Your task to perform on an android device: turn off location history Image 0: 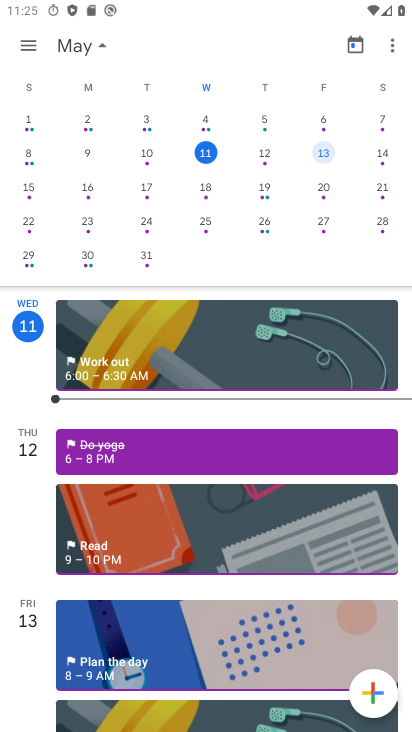
Step 0: press home button
Your task to perform on an android device: turn off location history Image 1: 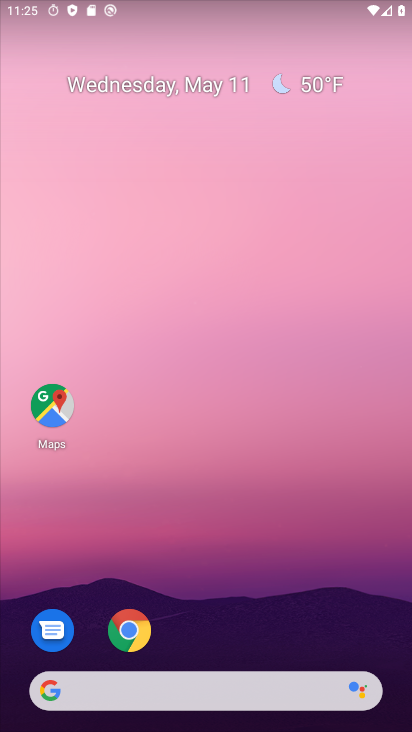
Step 1: drag from (251, 641) to (275, 87)
Your task to perform on an android device: turn off location history Image 2: 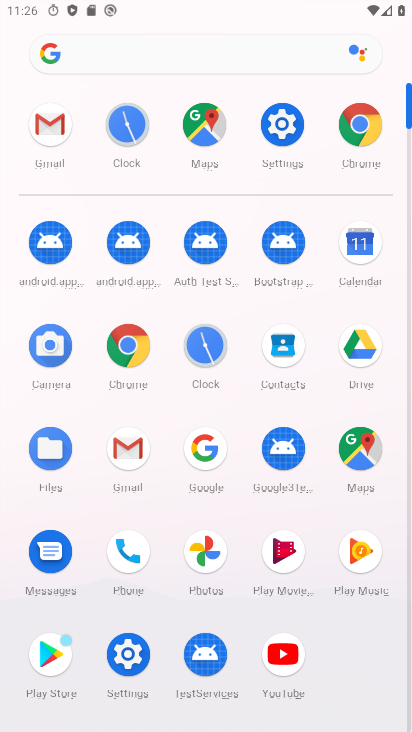
Step 2: click (125, 648)
Your task to perform on an android device: turn off location history Image 3: 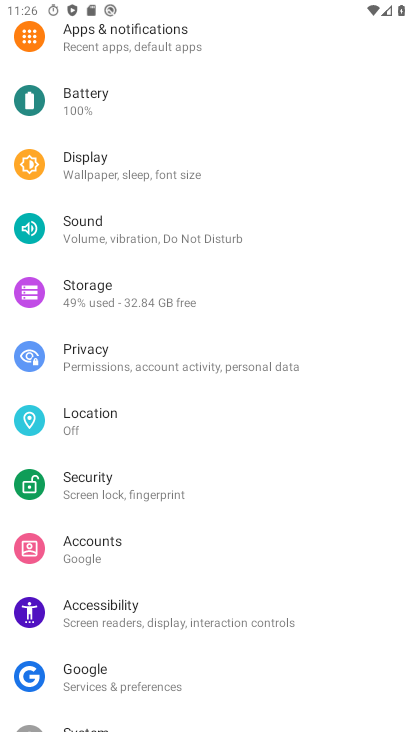
Step 3: click (107, 431)
Your task to perform on an android device: turn off location history Image 4: 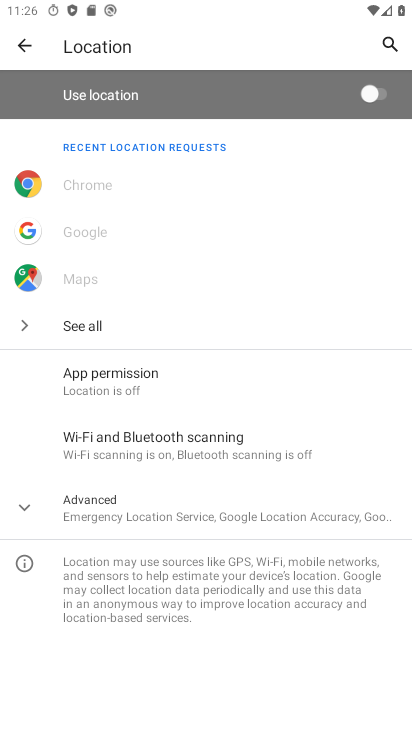
Step 4: task complete